Your task to perform on an android device: Show me popular videos on Youtube Image 0: 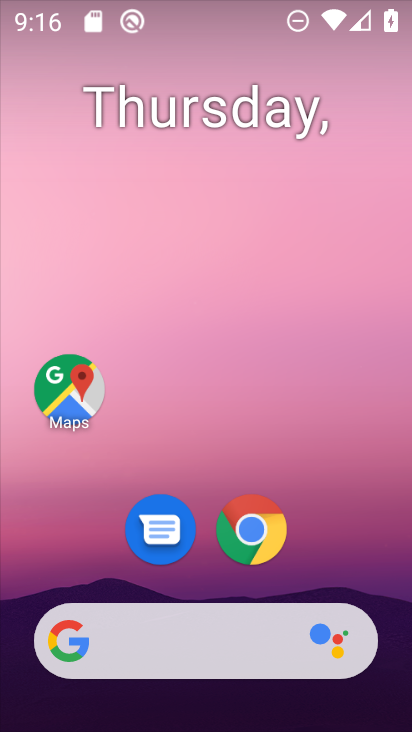
Step 0: press home button
Your task to perform on an android device: Show me popular videos on Youtube Image 1: 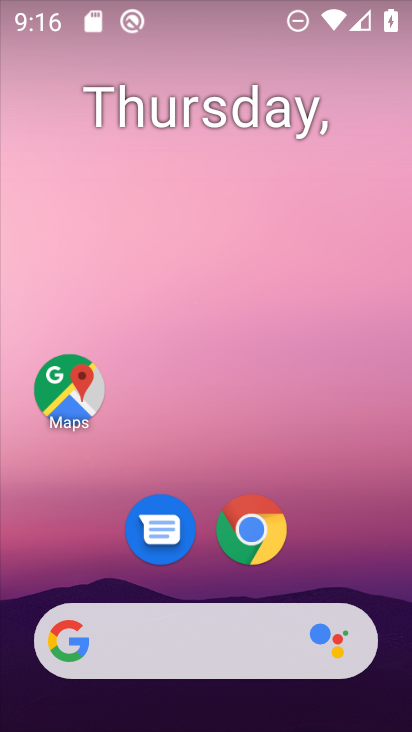
Step 1: drag from (216, 727) to (218, 92)
Your task to perform on an android device: Show me popular videos on Youtube Image 2: 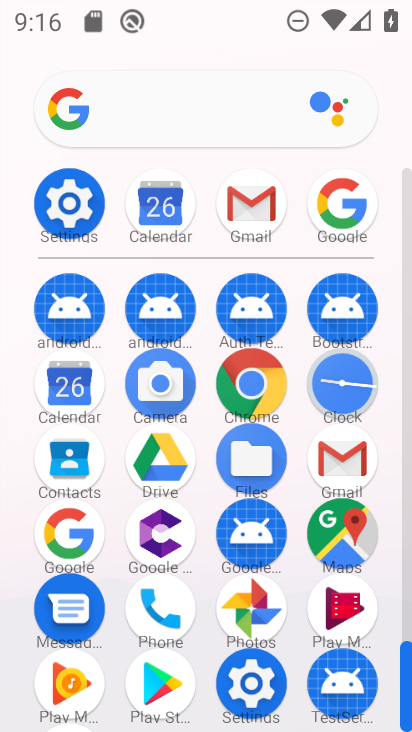
Step 2: drag from (299, 661) to (298, 568)
Your task to perform on an android device: Show me popular videos on Youtube Image 3: 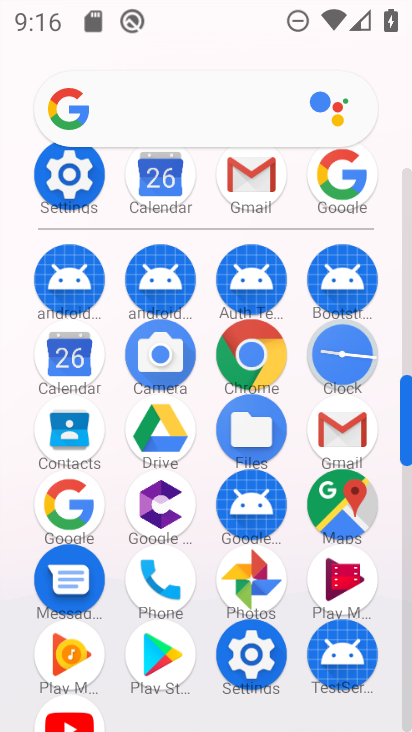
Step 3: drag from (297, 359) to (297, 257)
Your task to perform on an android device: Show me popular videos on Youtube Image 4: 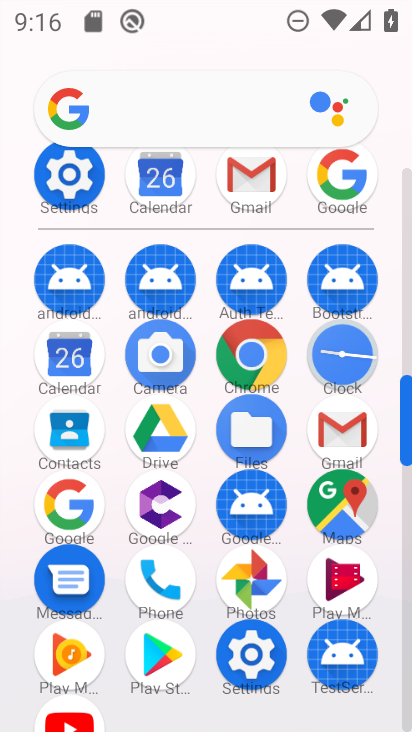
Step 4: click (74, 711)
Your task to perform on an android device: Show me popular videos on Youtube Image 5: 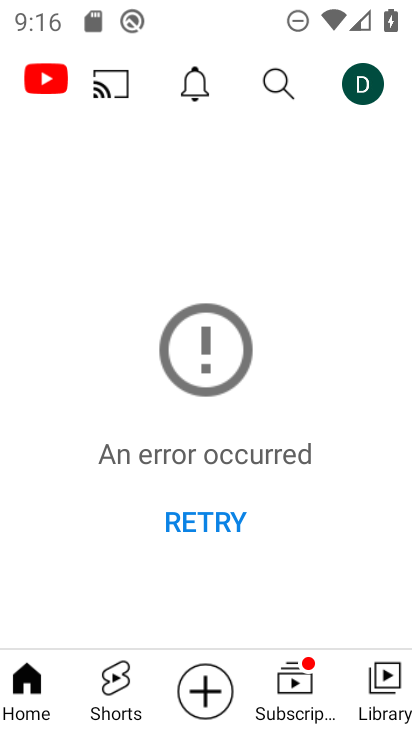
Step 5: click (279, 79)
Your task to perform on an android device: Show me popular videos on Youtube Image 6: 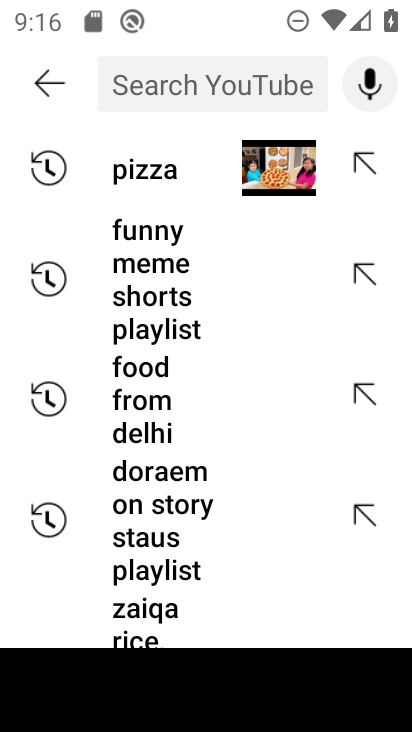
Step 6: type "popular  videos on youtube"
Your task to perform on an android device: Show me popular videos on Youtube Image 7: 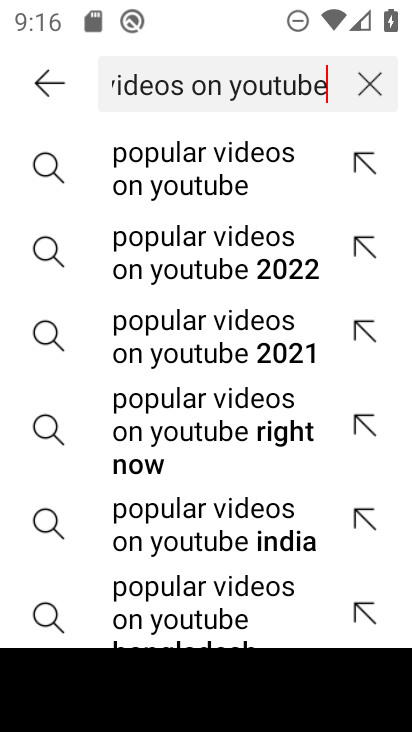
Step 7: click (209, 150)
Your task to perform on an android device: Show me popular videos on Youtube Image 8: 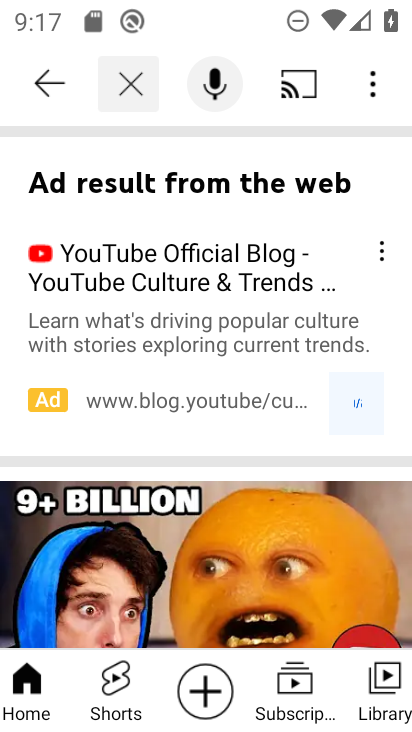
Step 8: task complete